Your task to perform on an android device: delete the emails in spam in the gmail app Image 0: 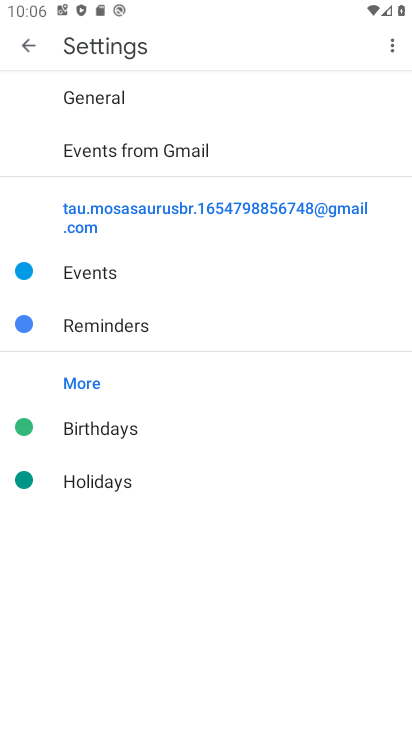
Step 0: press home button
Your task to perform on an android device: delete the emails in spam in the gmail app Image 1: 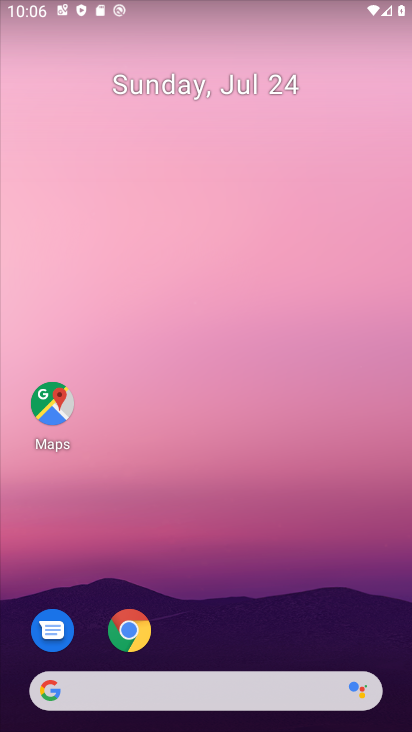
Step 1: drag from (190, 627) to (143, 206)
Your task to perform on an android device: delete the emails in spam in the gmail app Image 2: 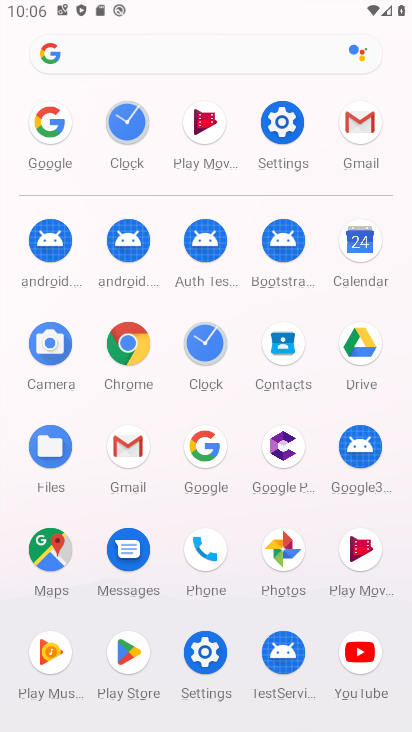
Step 2: click (357, 151)
Your task to perform on an android device: delete the emails in spam in the gmail app Image 3: 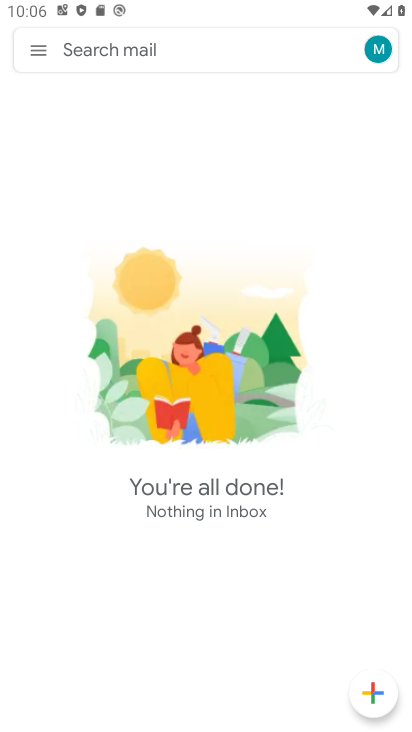
Step 3: click (28, 69)
Your task to perform on an android device: delete the emails in spam in the gmail app Image 4: 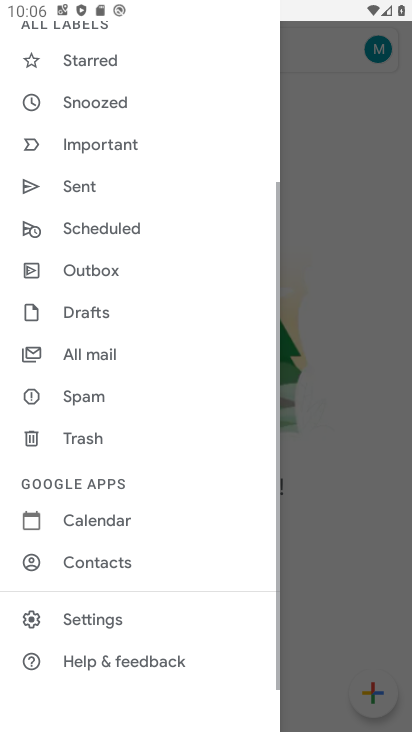
Step 4: drag from (122, 206) to (139, 613)
Your task to perform on an android device: delete the emails in spam in the gmail app Image 5: 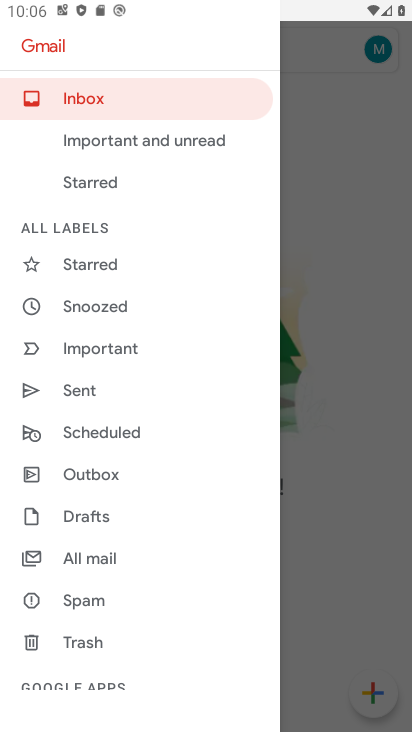
Step 5: click (64, 547)
Your task to perform on an android device: delete the emails in spam in the gmail app Image 6: 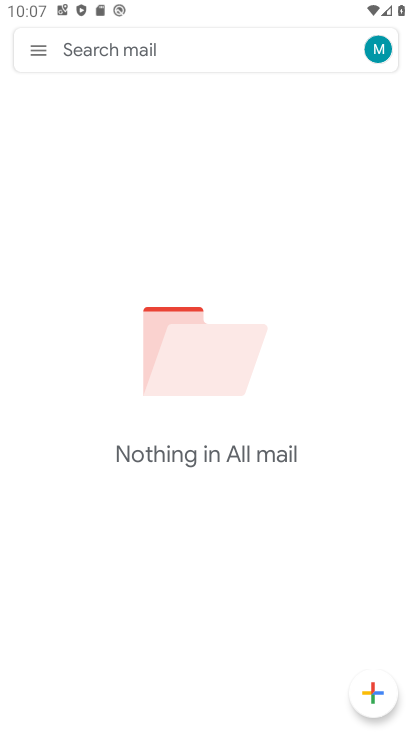
Step 6: task complete